Your task to perform on an android device: Go to Yahoo.com Image 0: 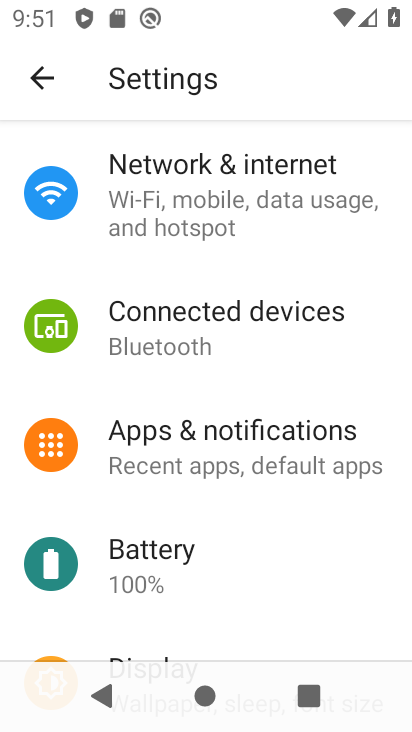
Step 0: press home button
Your task to perform on an android device: Go to Yahoo.com Image 1: 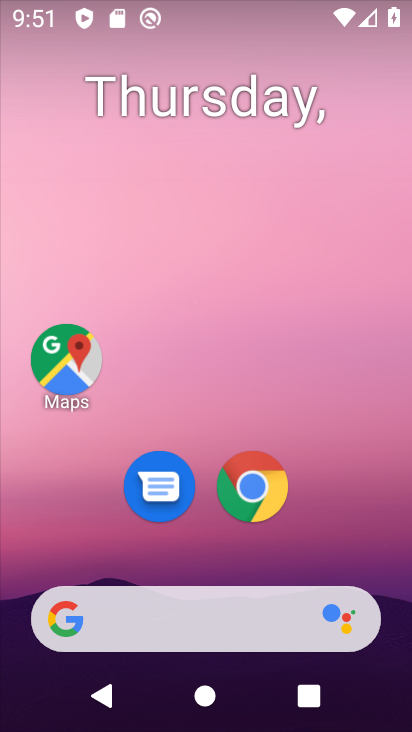
Step 1: click (268, 516)
Your task to perform on an android device: Go to Yahoo.com Image 2: 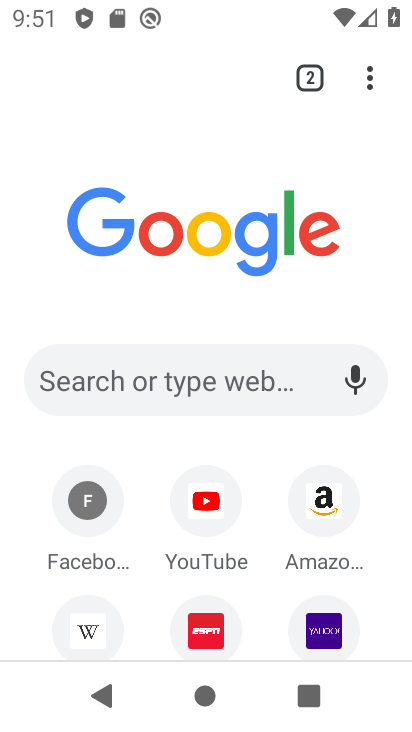
Step 2: click (312, 623)
Your task to perform on an android device: Go to Yahoo.com Image 3: 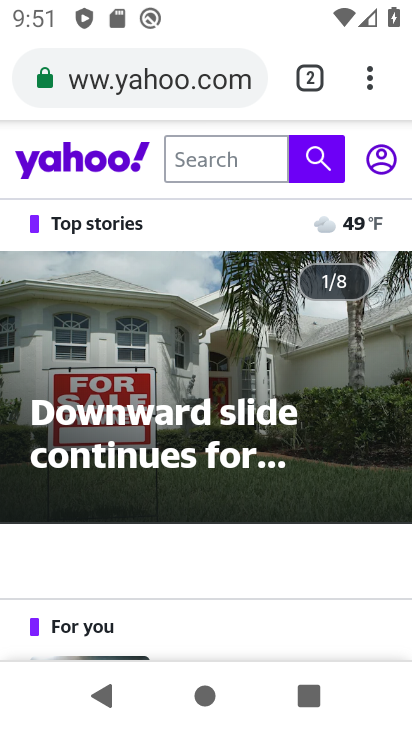
Step 3: task complete